Your task to perform on an android device: visit the assistant section in the google photos Image 0: 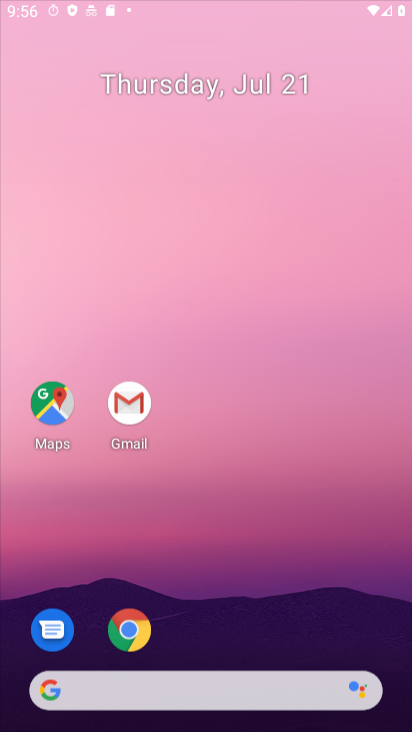
Step 0: click (267, 486)
Your task to perform on an android device: visit the assistant section in the google photos Image 1: 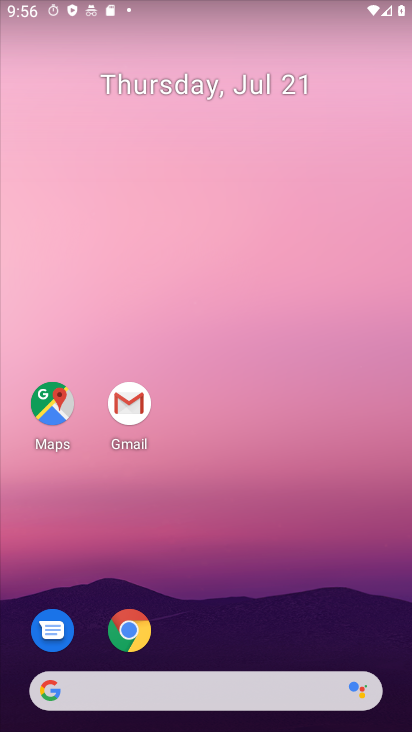
Step 1: drag from (192, 712) to (180, 311)
Your task to perform on an android device: visit the assistant section in the google photos Image 2: 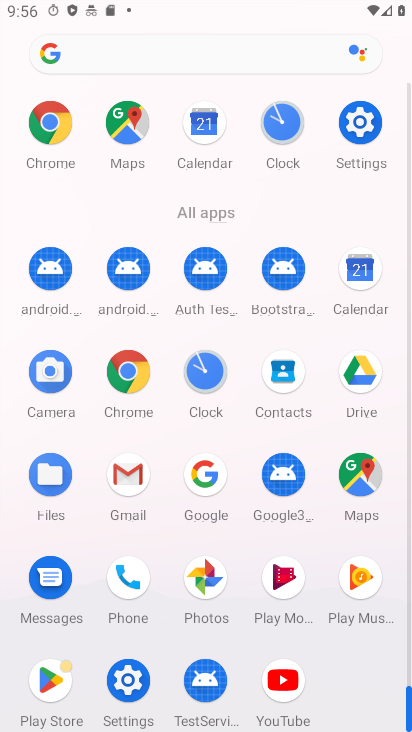
Step 2: click (206, 587)
Your task to perform on an android device: visit the assistant section in the google photos Image 3: 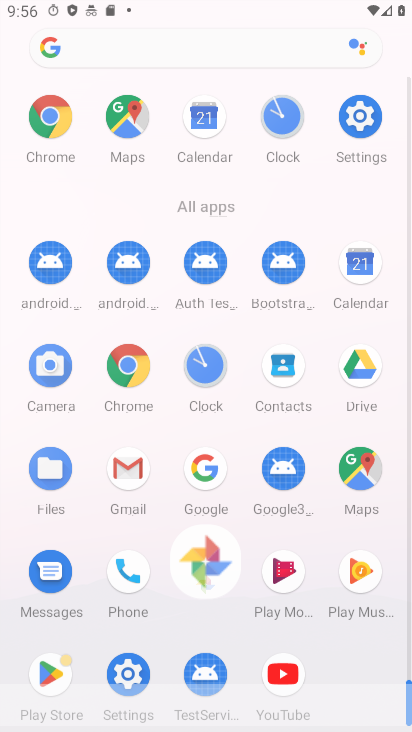
Step 3: click (212, 581)
Your task to perform on an android device: visit the assistant section in the google photos Image 4: 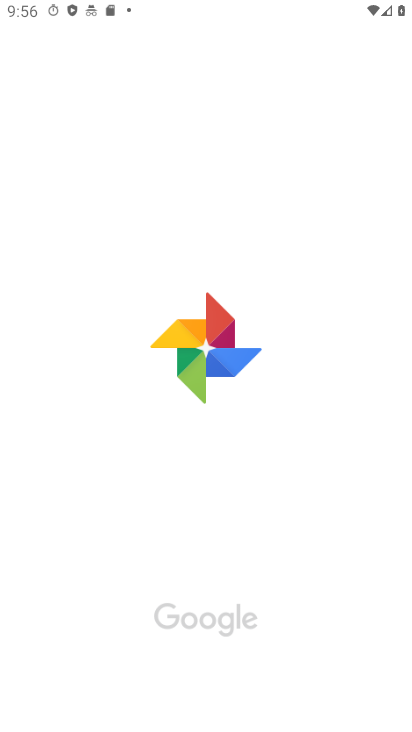
Step 4: click (212, 581)
Your task to perform on an android device: visit the assistant section in the google photos Image 5: 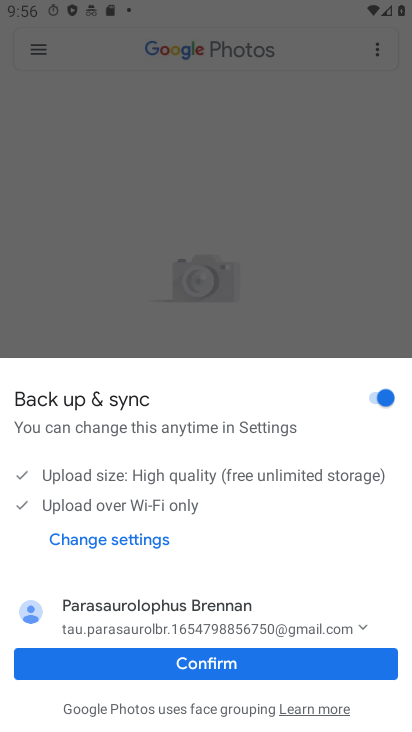
Step 5: click (224, 675)
Your task to perform on an android device: visit the assistant section in the google photos Image 6: 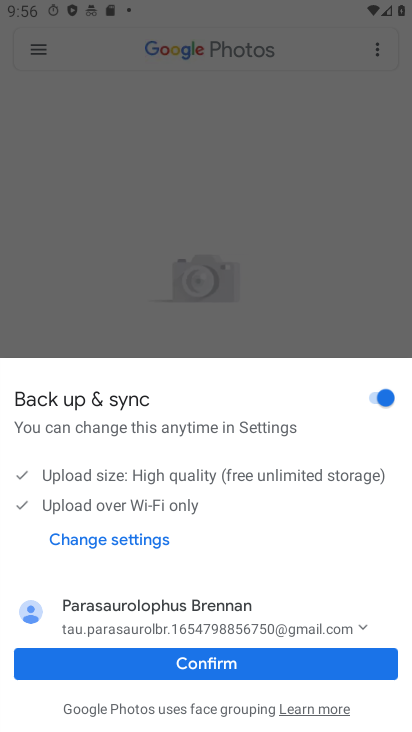
Step 6: click (225, 672)
Your task to perform on an android device: visit the assistant section in the google photos Image 7: 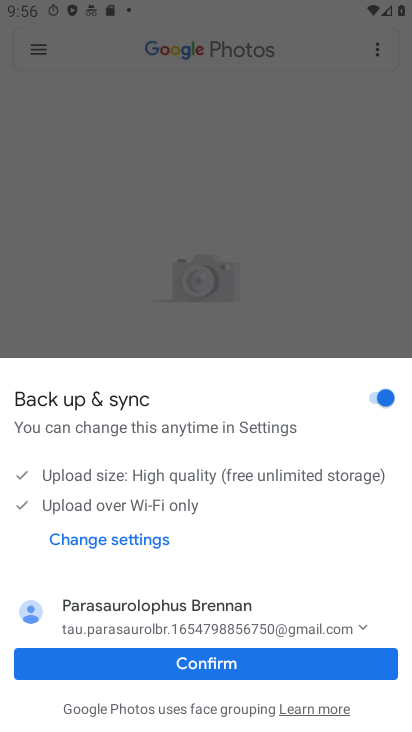
Step 7: click (230, 677)
Your task to perform on an android device: visit the assistant section in the google photos Image 8: 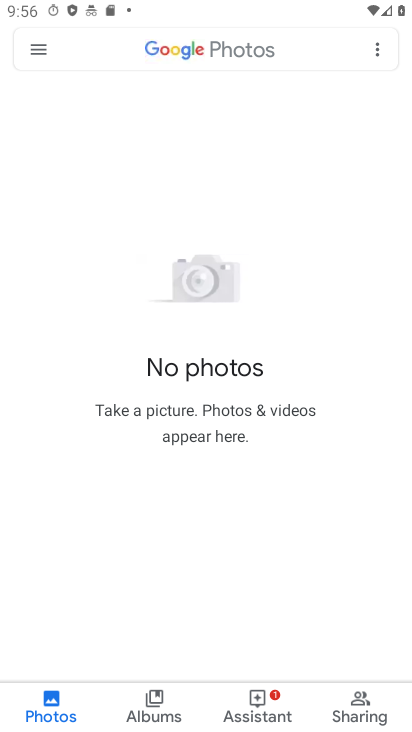
Step 8: click (252, 690)
Your task to perform on an android device: visit the assistant section in the google photos Image 9: 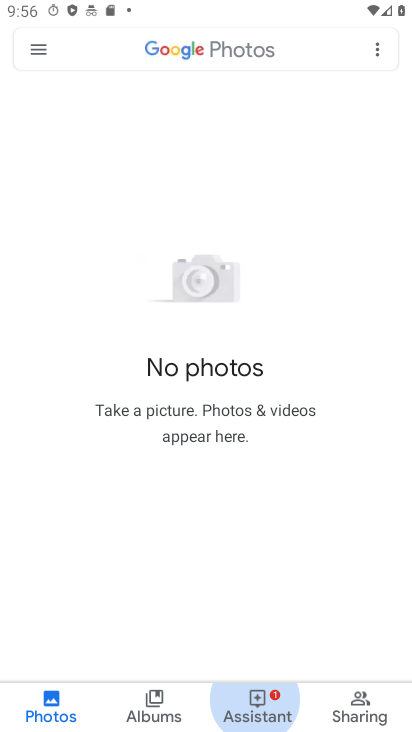
Step 9: click (266, 698)
Your task to perform on an android device: visit the assistant section in the google photos Image 10: 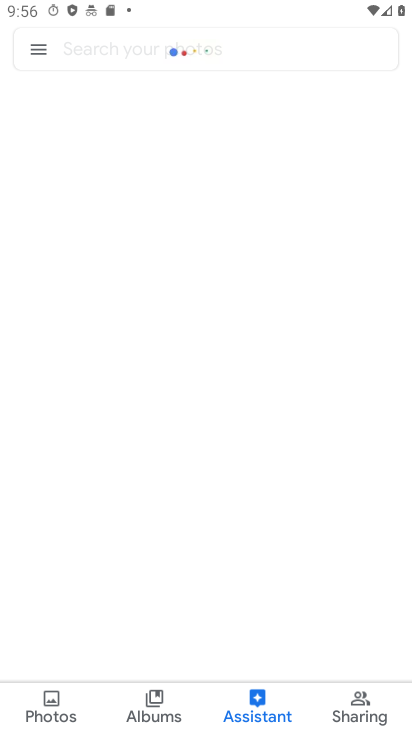
Step 10: task complete